Your task to perform on an android device: open the mobile data screen to see how much data has been used Image 0: 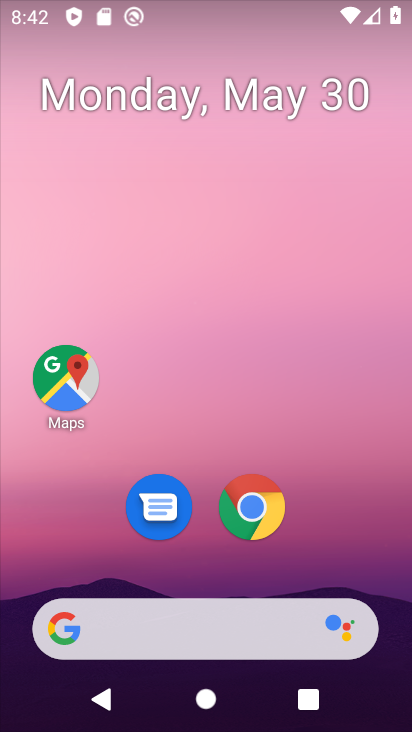
Step 0: drag from (196, 575) to (296, 37)
Your task to perform on an android device: open the mobile data screen to see how much data has been used Image 1: 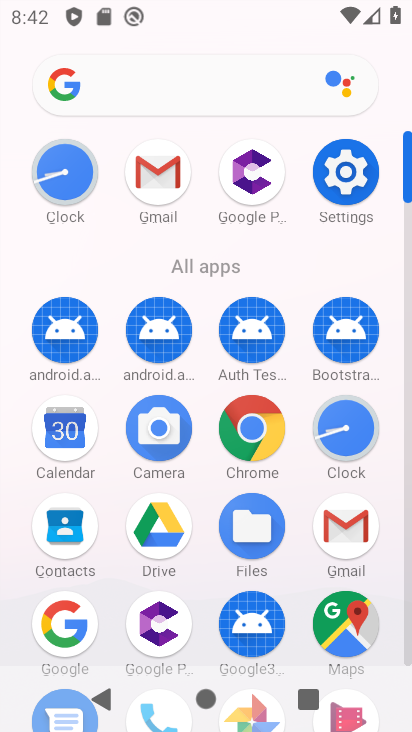
Step 1: drag from (199, 634) to (284, 267)
Your task to perform on an android device: open the mobile data screen to see how much data has been used Image 2: 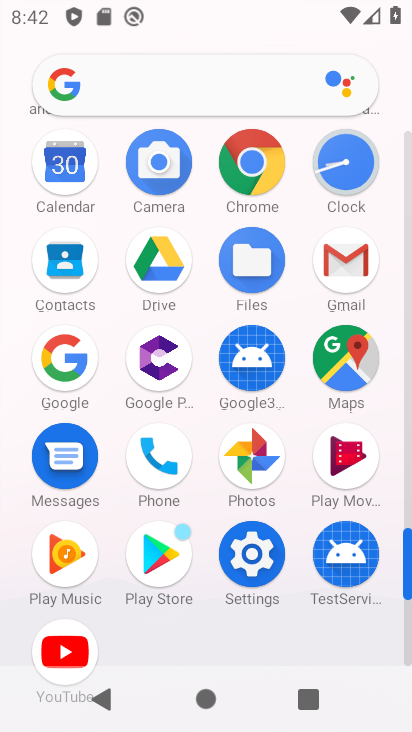
Step 2: click (253, 550)
Your task to perform on an android device: open the mobile data screen to see how much data has been used Image 3: 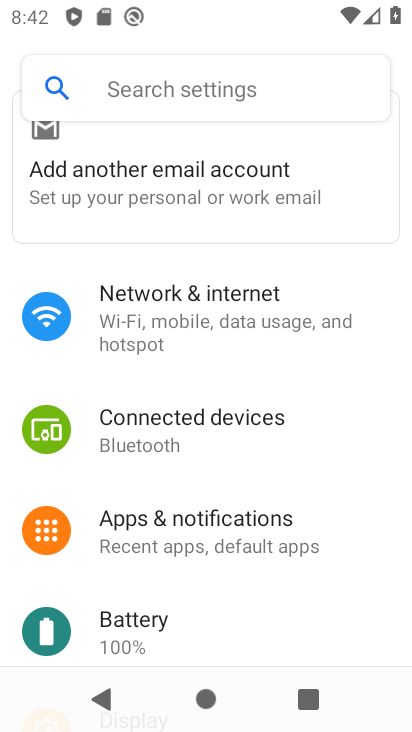
Step 3: click (173, 346)
Your task to perform on an android device: open the mobile data screen to see how much data has been used Image 4: 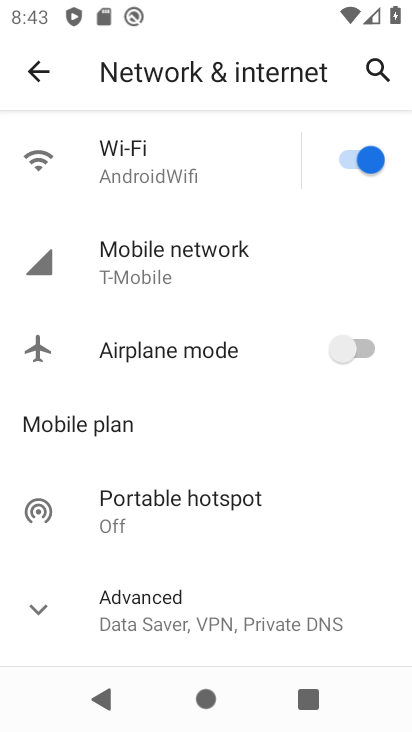
Step 4: click (146, 265)
Your task to perform on an android device: open the mobile data screen to see how much data has been used Image 5: 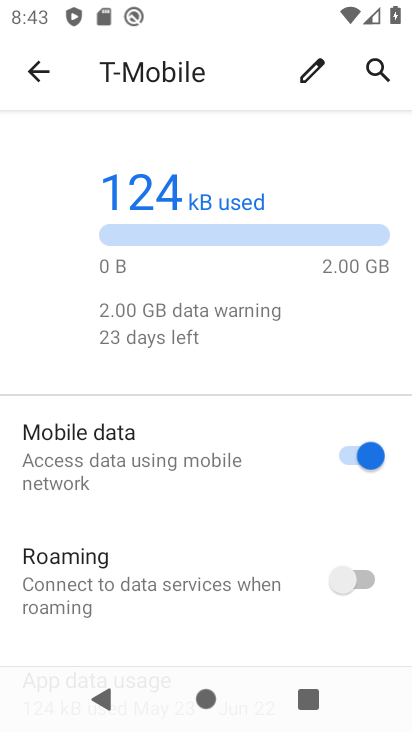
Step 5: task complete